Your task to perform on an android device: find snoozed emails in the gmail app Image 0: 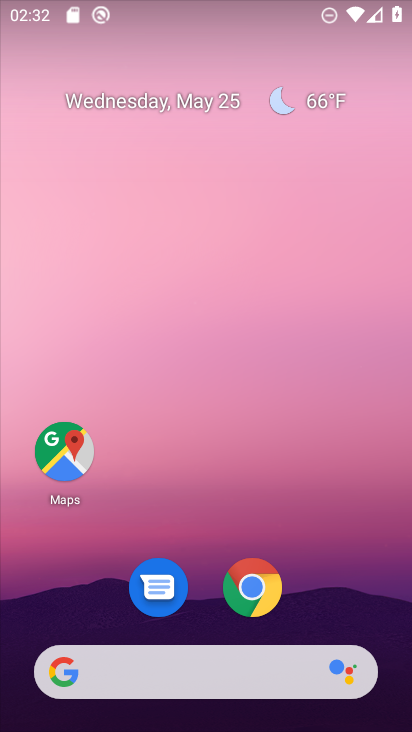
Step 0: drag from (366, 585) to (349, 337)
Your task to perform on an android device: find snoozed emails in the gmail app Image 1: 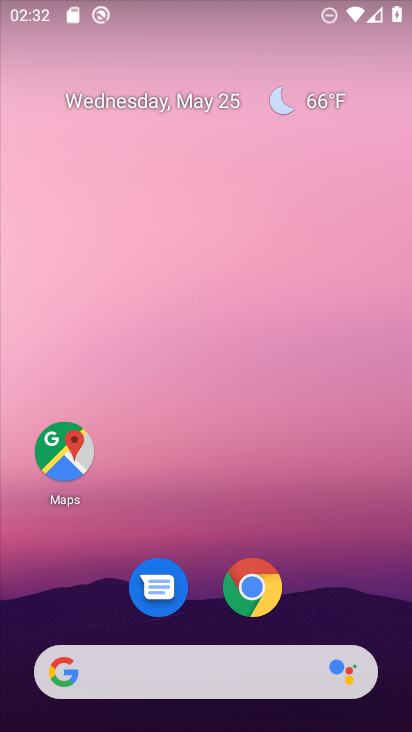
Step 1: drag from (379, 610) to (357, 285)
Your task to perform on an android device: find snoozed emails in the gmail app Image 2: 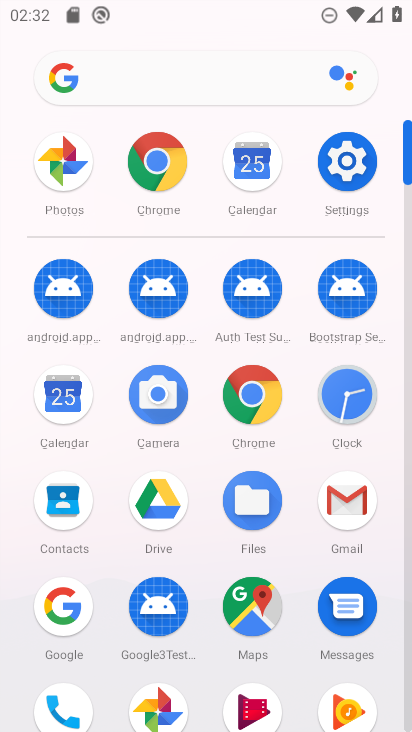
Step 2: click (358, 520)
Your task to perform on an android device: find snoozed emails in the gmail app Image 3: 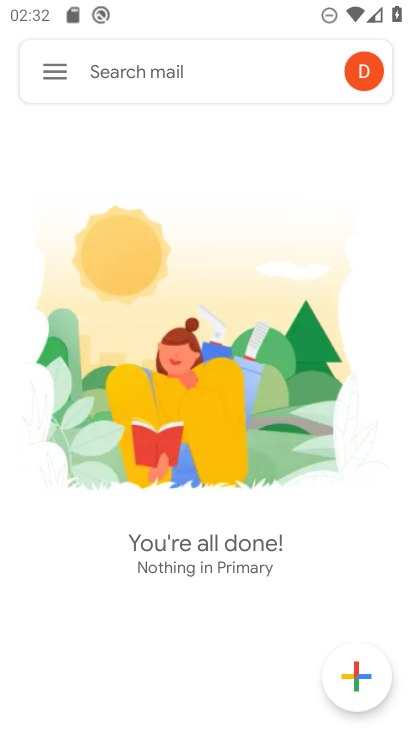
Step 3: click (54, 91)
Your task to perform on an android device: find snoozed emails in the gmail app Image 4: 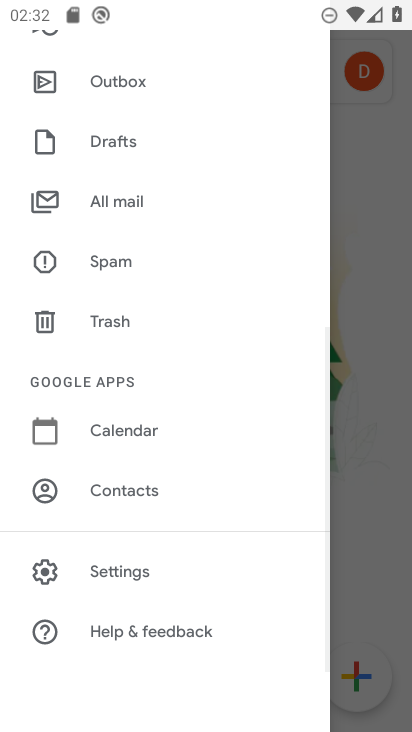
Step 4: drag from (225, 498) to (237, 379)
Your task to perform on an android device: find snoozed emails in the gmail app Image 5: 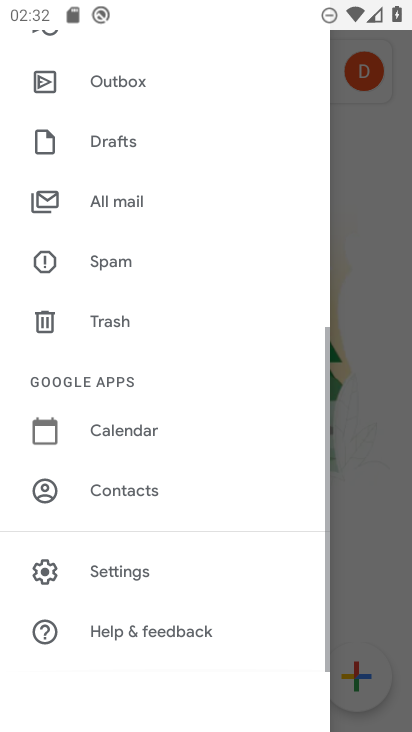
Step 5: drag from (256, 266) to (261, 413)
Your task to perform on an android device: find snoozed emails in the gmail app Image 6: 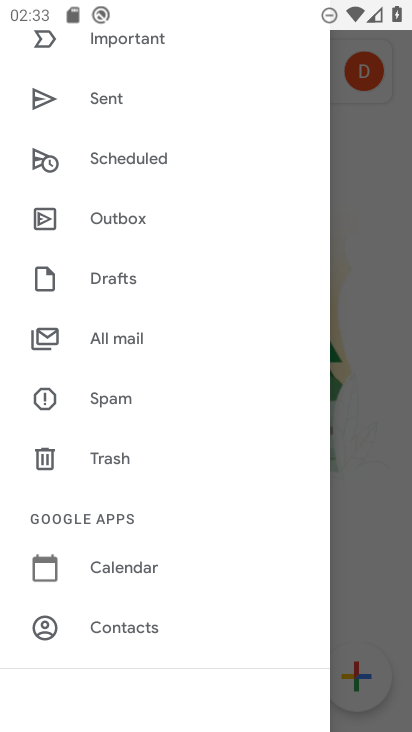
Step 6: drag from (217, 230) to (219, 382)
Your task to perform on an android device: find snoozed emails in the gmail app Image 7: 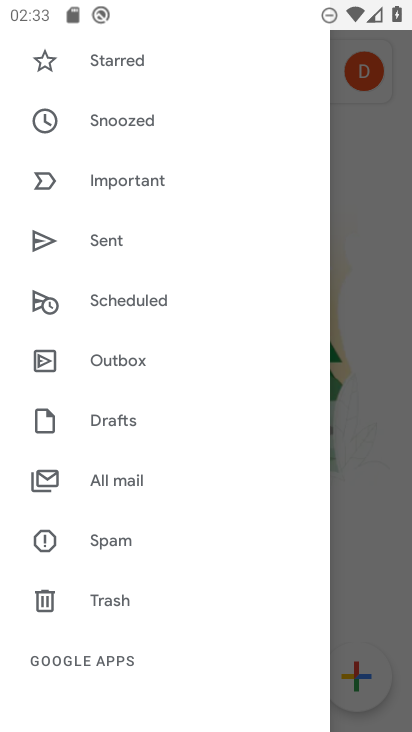
Step 7: drag from (227, 277) to (233, 417)
Your task to perform on an android device: find snoozed emails in the gmail app Image 8: 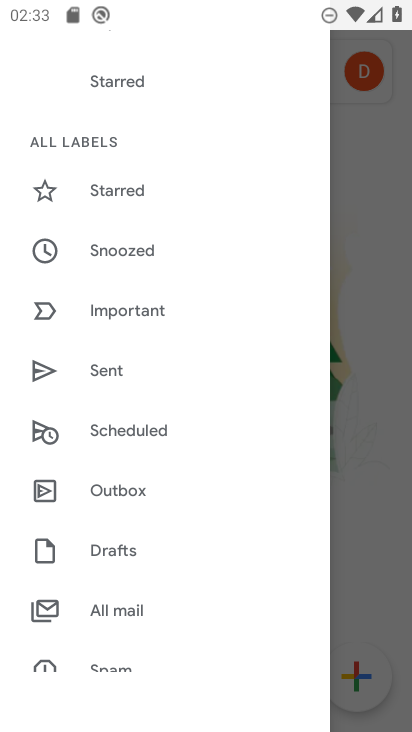
Step 8: drag from (249, 338) to (249, 437)
Your task to perform on an android device: find snoozed emails in the gmail app Image 9: 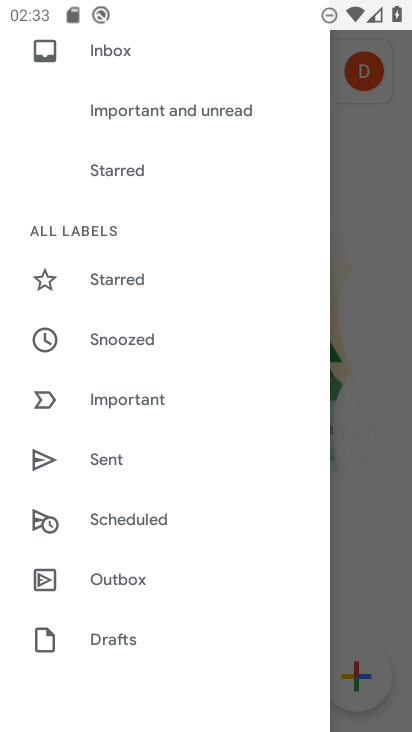
Step 9: click (148, 342)
Your task to perform on an android device: find snoozed emails in the gmail app Image 10: 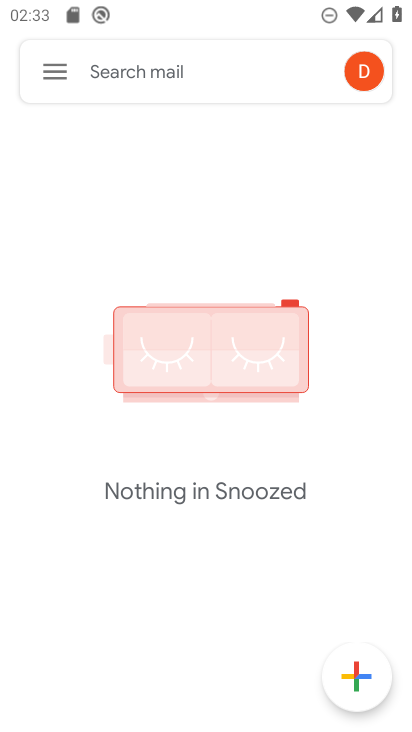
Step 10: task complete